Your task to perform on an android device: turn on translation in the chrome app Image 0: 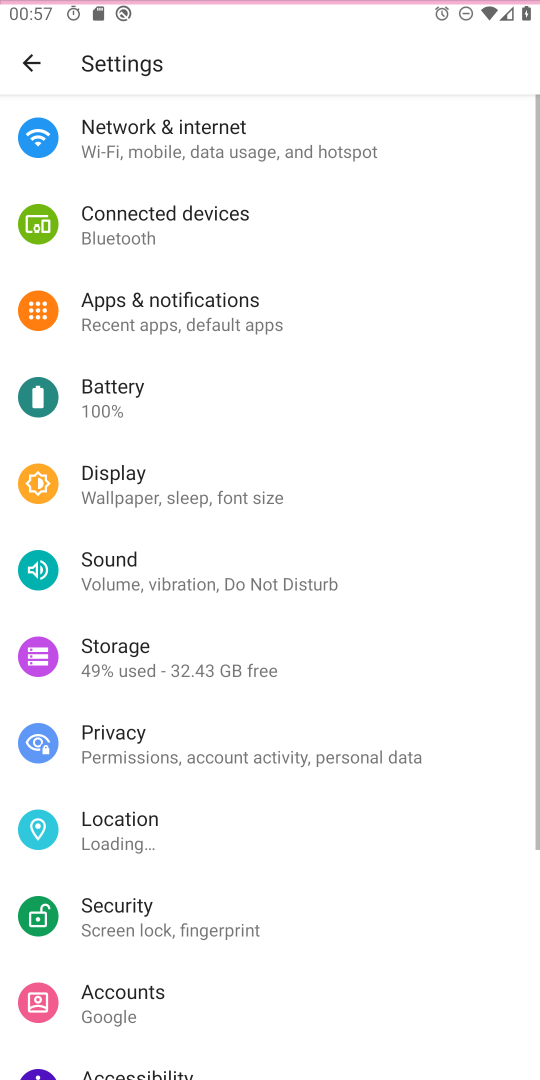
Step 0: press home button
Your task to perform on an android device: turn on translation in the chrome app Image 1: 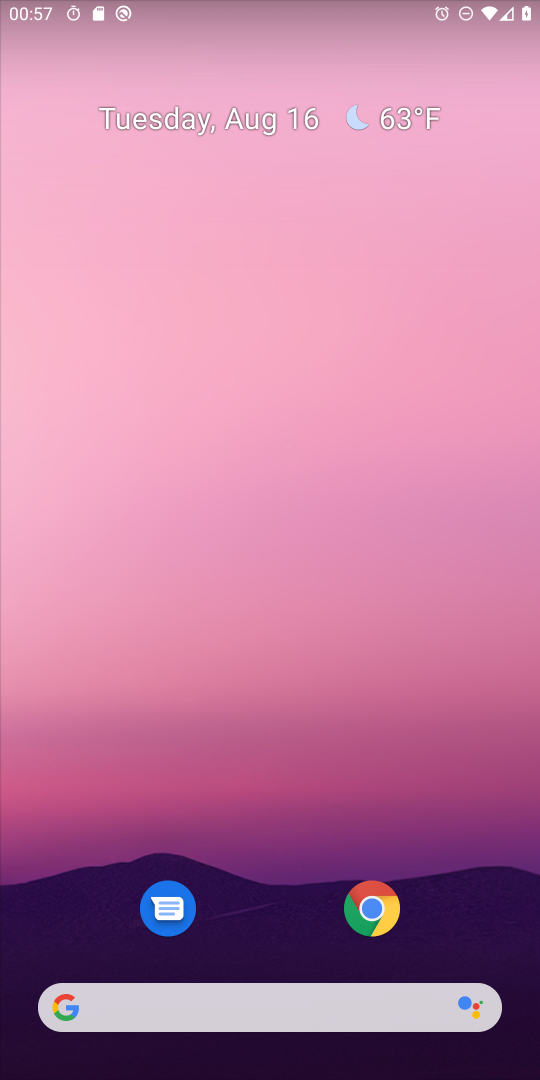
Step 1: click (374, 920)
Your task to perform on an android device: turn on translation in the chrome app Image 2: 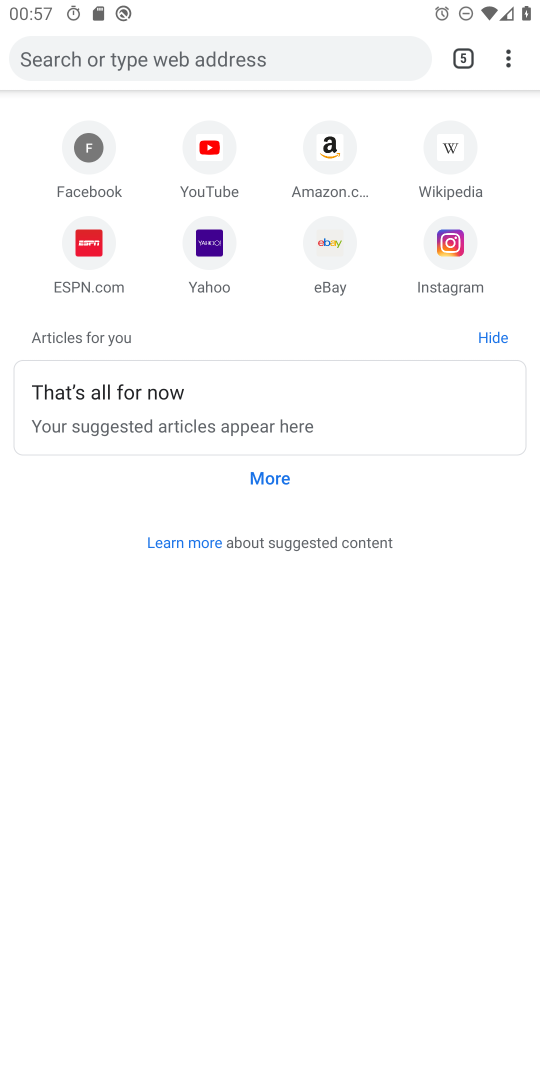
Step 2: click (509, 51)
Your task to perform on an android device: turn on translation in the chrome app Image 3: 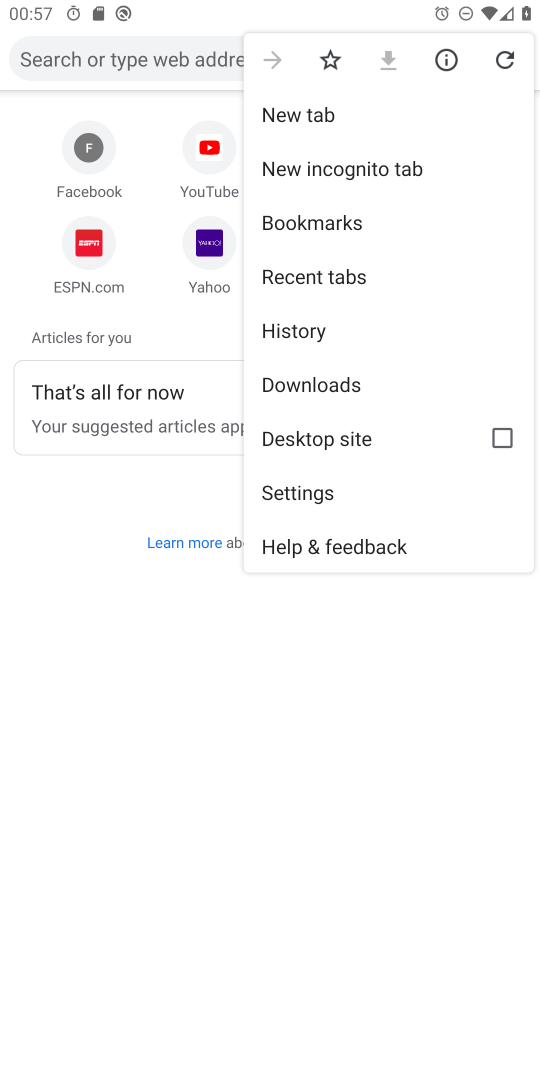
Step 3: click (309, 483)
Your task to perform on an android device: turn on translation in the chrome app Image 4: 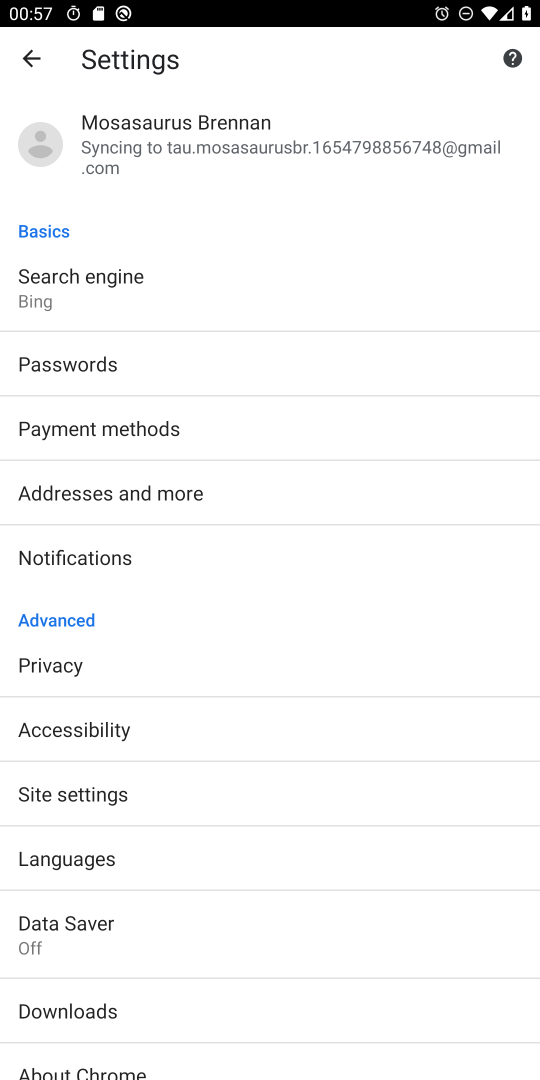
Step 4: click (83, 799)
Your task to perform on an android device: turn on translation in the chrome app Image 5: 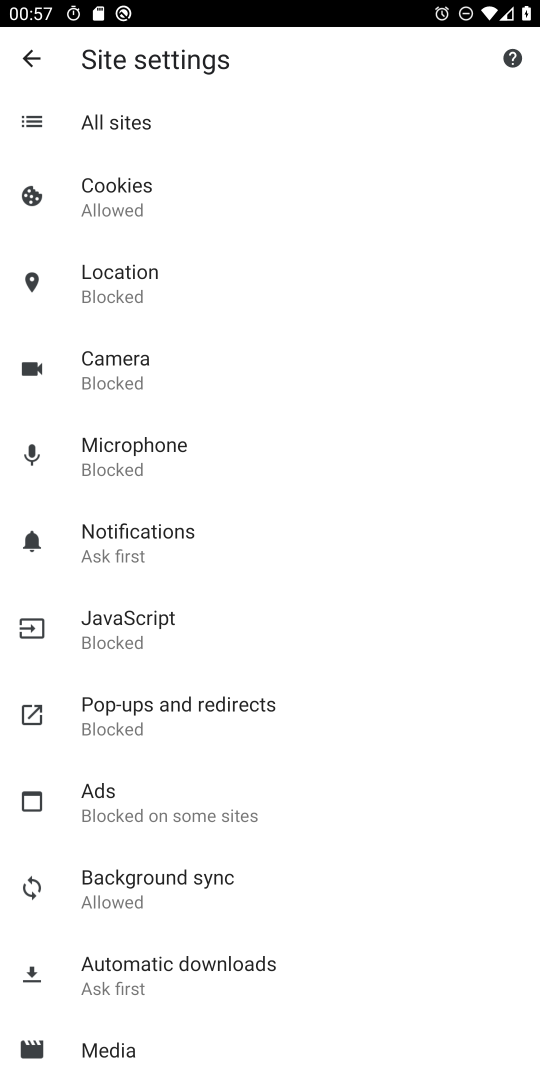
Step 5: click (32, 60)
Your task to perform on an android device: turn on translation in the chrome app Image 6: 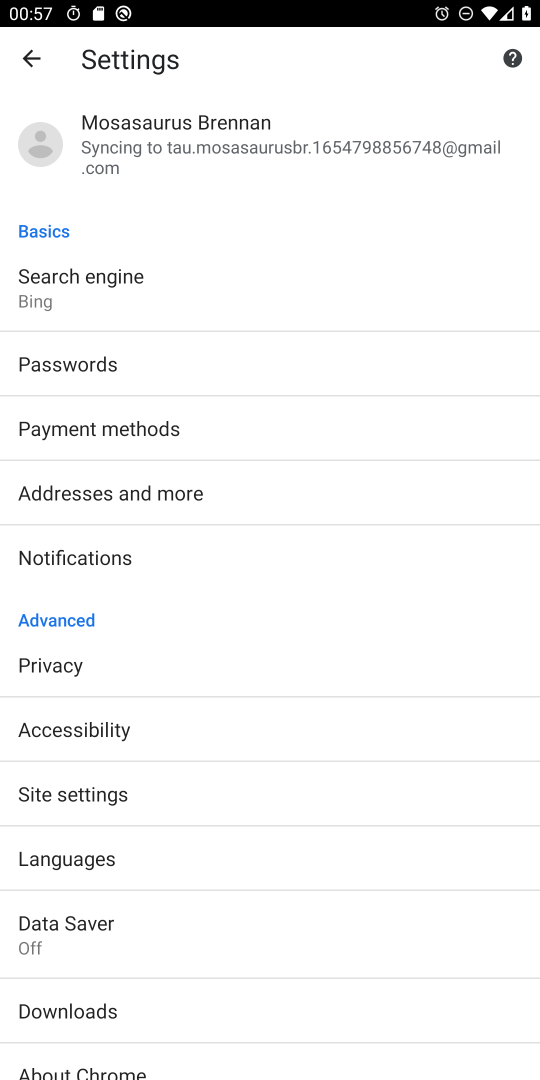
Step 6: click (191, 863)
Your task to perform on an android device: turn on translation in the chrome app Image 7: 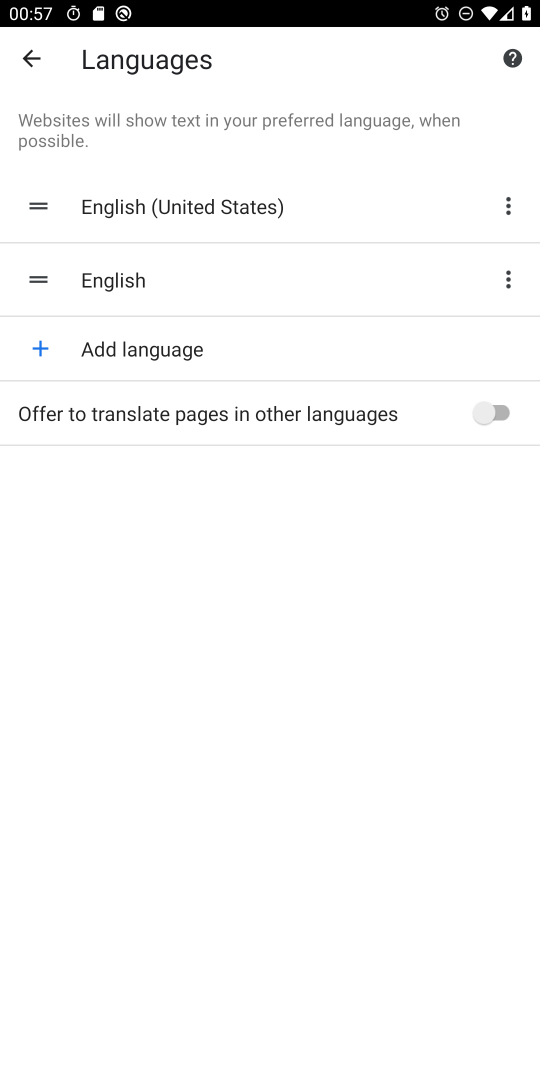
Step 7: click (504, 421)
Your task to perform on an android device: turn on translation in the chrome app Image 8: 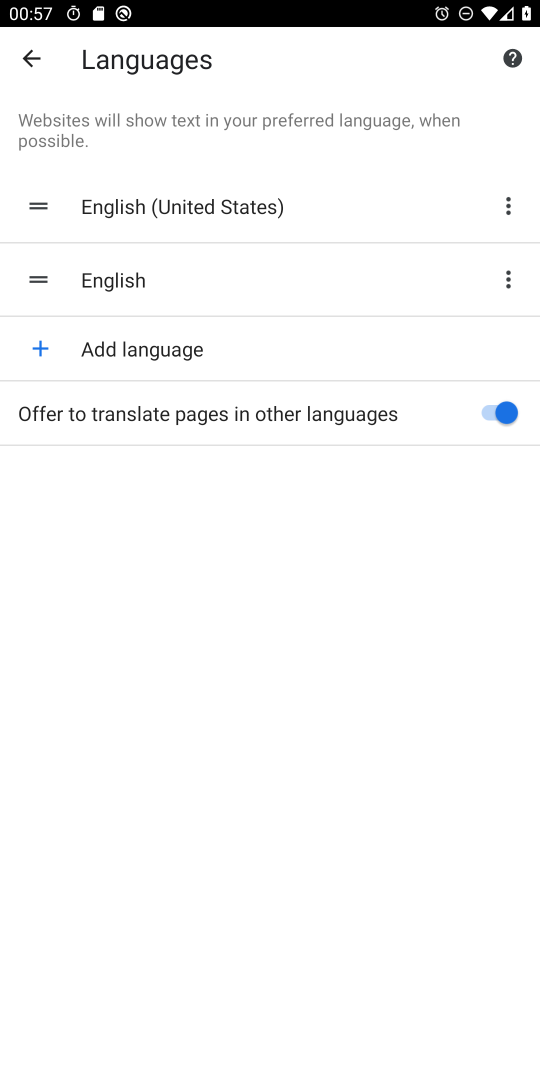
Step 8: task complete